Your task to perform on an android device: turn pop-ups on in chrome Image 0: 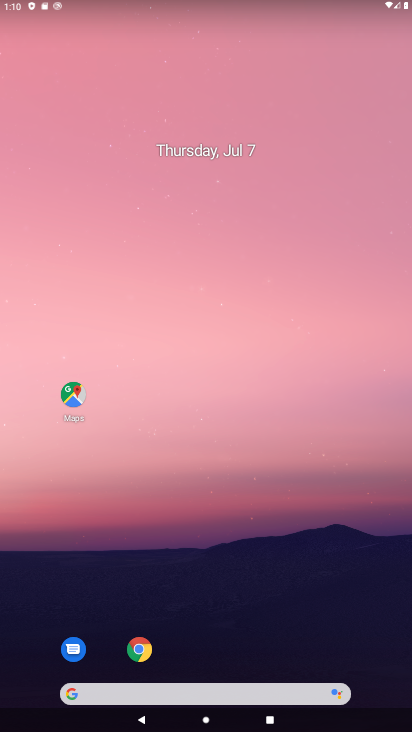
Step 0: click (137, 651)
Your task to perform on an android device: turn pop-ups on in chrome Image 1: 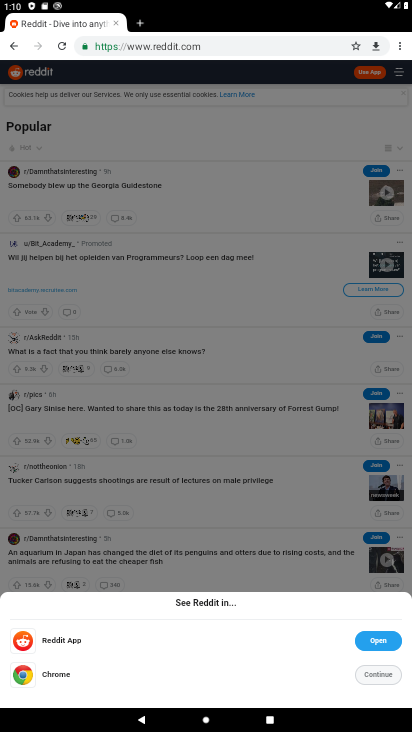
Step 1: click (400, 49)
Your task to perform on an android device: turn pop-ups on in chrome Image 2: 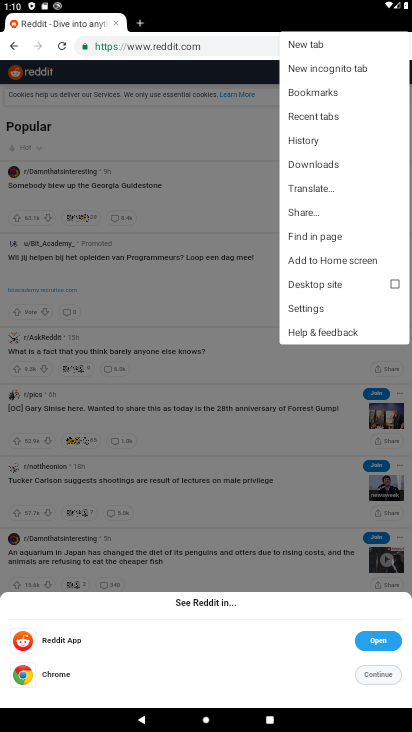
Step 2: click (302, 304)
Your task to perform on an android device: turn pop-ups on in chrome Image 3: 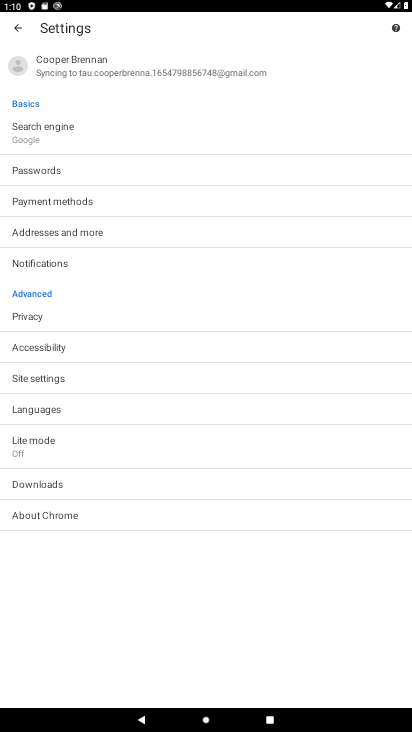
Step 3: click (28, 381)
Your task to perform on an android device: turn pop-ups on in chrome Image 4: 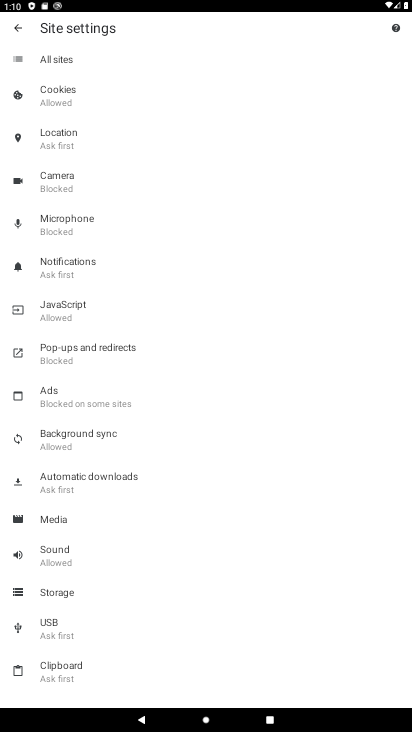
Step 4: click (64, 355)
Your task to perform on an android device: turn pop-ups on in chrome Image 5: 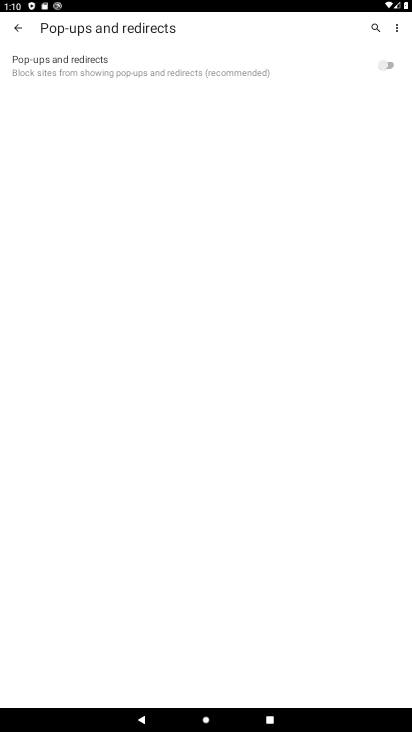
Step 5: click (389, 64)
Your task to perform on an android device: turn pop-ups on in chrome Image 6: 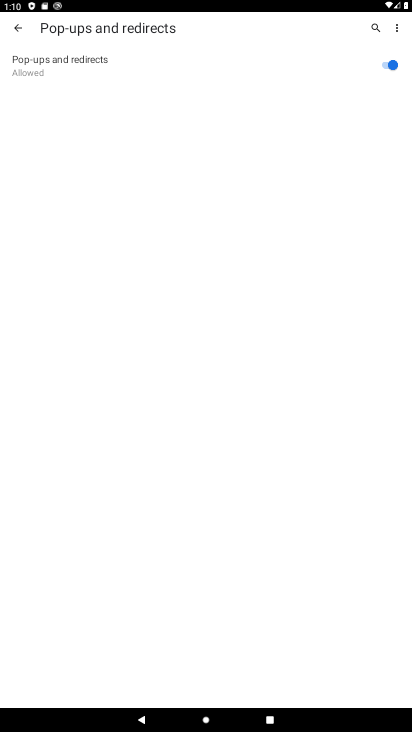
Step 6: task complete